Your task to perform on an android device: check out phone information Image 0: 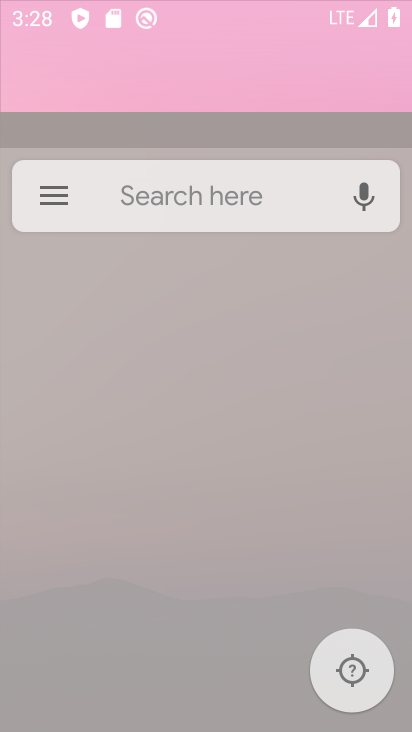
Step 0: click (258, 161)
Your task to perform on an android device: check out phone information Image 1: 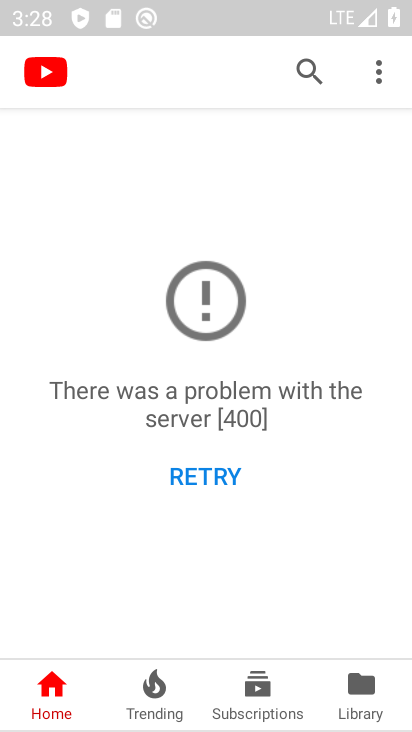
Step 1: press home button
Your task to perform on an android device: check out phone information Image 2: 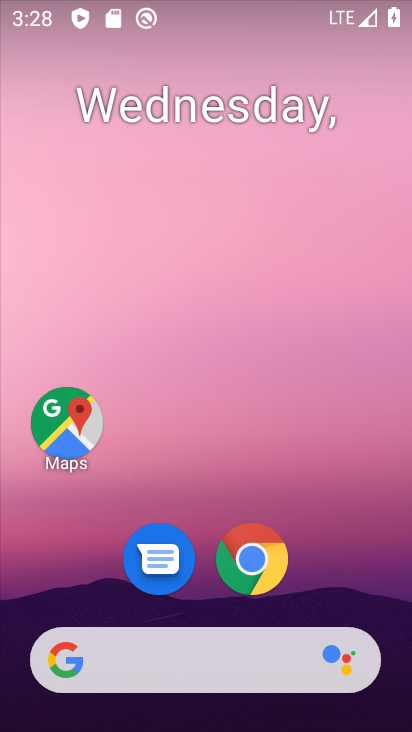
Step 2: click (267, 558)
Your task to perform on an android device: check out phone information Image 3: 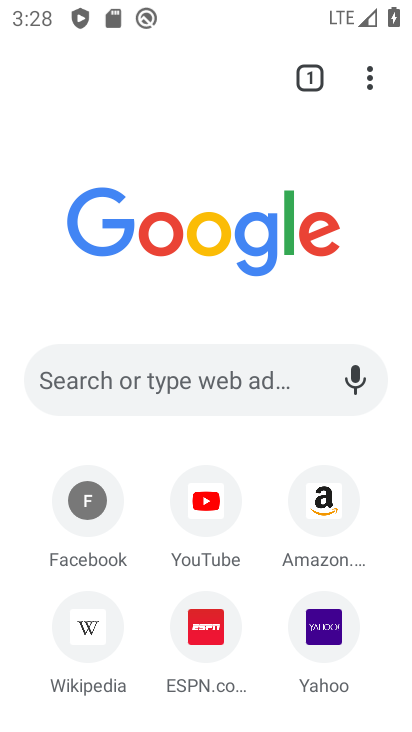
Step 3: press home button
Your task to perform on an android device: check out phone information Image 4: 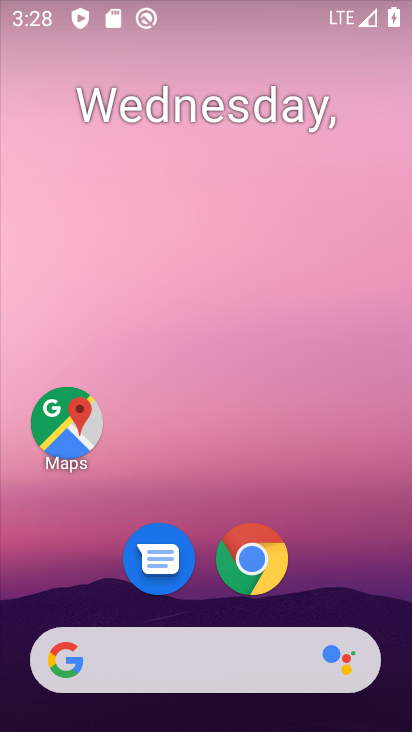
Step 4: drag from (335, 521) to (220, 63)
Your task to perform on an android device: check out phone information Image 5: 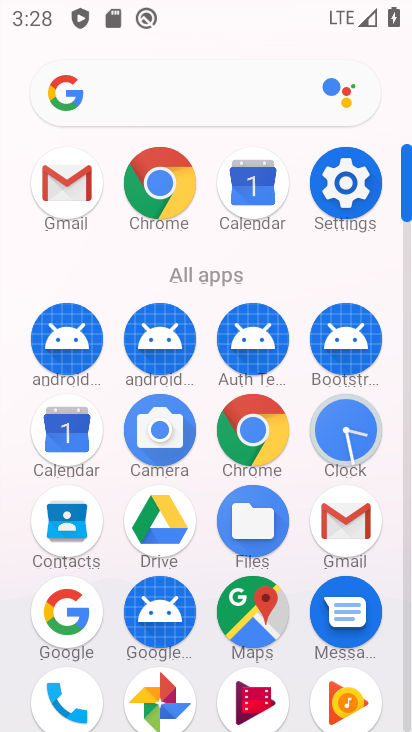
Step 5: drag from (221, 577) to (308, 151)
Your task to perform on an android device: check out phone information Image 6: 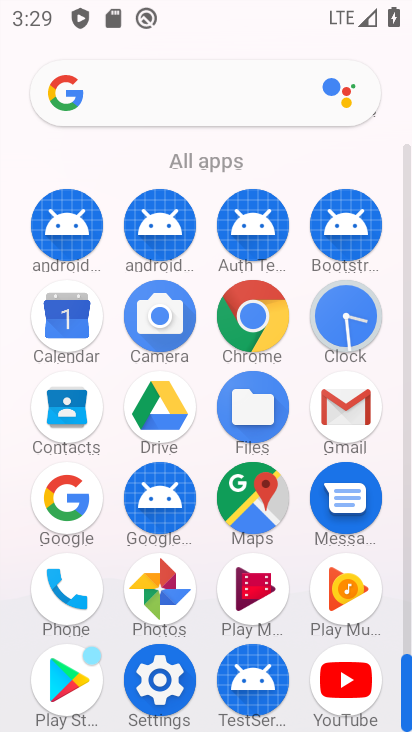
Step 6: click (69, 614)
Your task to perform on an android device: check out phone information Image 7: 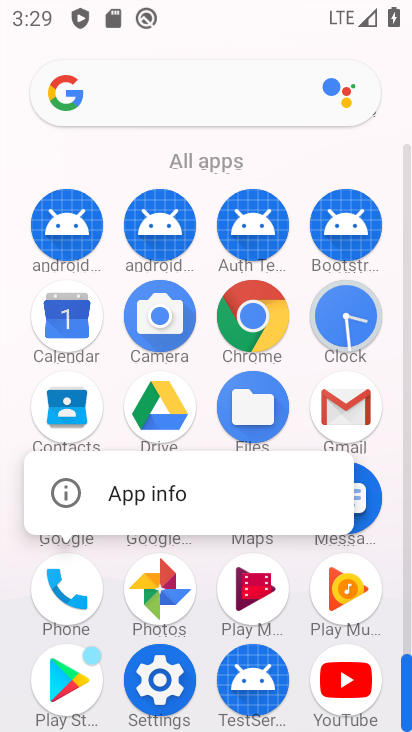
Step 7: click (152, 494)
Your task to perform on an android device: check out phone information Image 8: 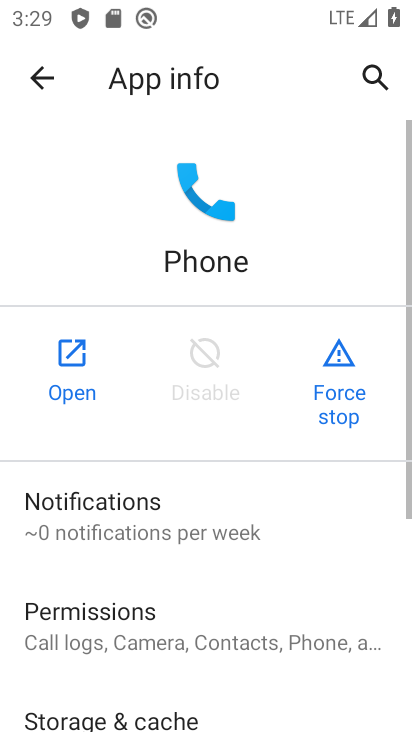
Step 8: task complete